Your task to perform on an android device: View the shopping cart on target.com. Search for "alienware area 51" on target.com, select the first entry, add it to the cart, then select checkout. Image 0: 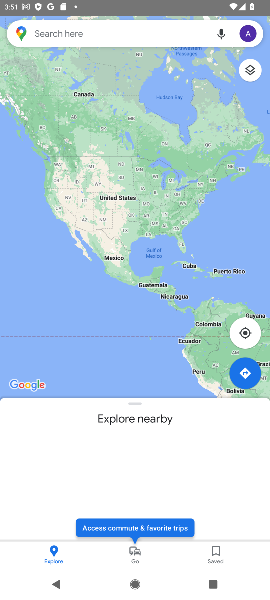
Step 0: press home button
Your task to perform on an android device: View the shopping cart on target.com. Search for "alienware area 51" on target.com, select the first entry, add it to the cart, then select checkout. Image 1: 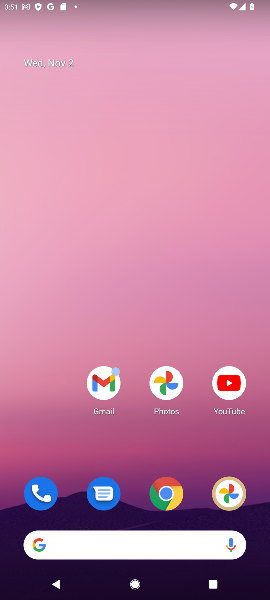
Step 1: drag from (144, 497) to (100, 184)
Your task to perform on an android device: View the shopping cart on target.com. Search for "alienware area 51" on target.com, select the first entry, add it to the cart, then select checkout. Image 2: 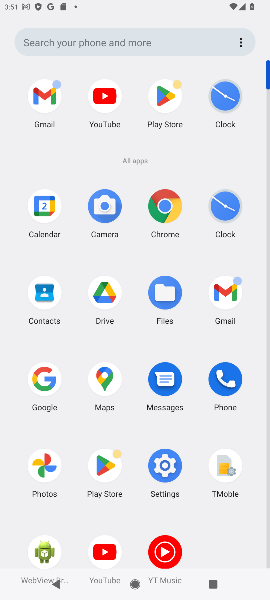
Step 2: click (51, 383)
Your task to perform on an android device: View the shopping cart on target.com. Search for "alienware area 51" on target.com, select the first entry, add it to the cart, then select checkout. Image 3: 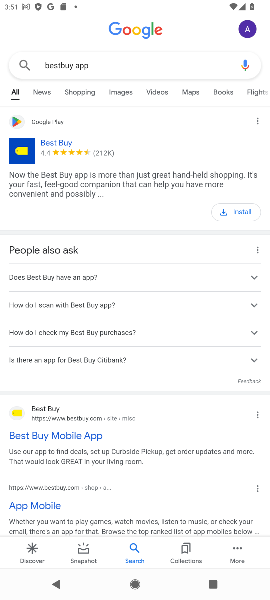
Step 3: click (89, 62)
Your task to perform on an android device: View the shopping cart on target.com. Search for "alienware area 51" on target.com, select the first entry, add it to the cart, then select checkout. Image 4: 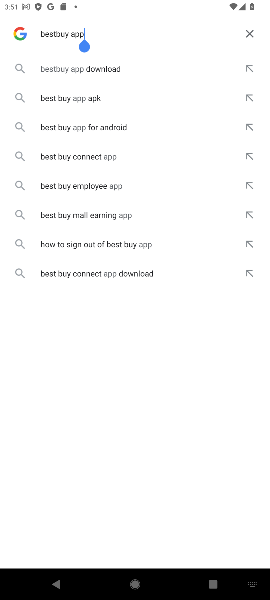
Step 4: click (249, 25)
Your task to perform on an android device: View the shopping cart on target.com. Search for "alienware area 51" on target.com, select the first entry, add it to the cart, then select checkout. Image 5: 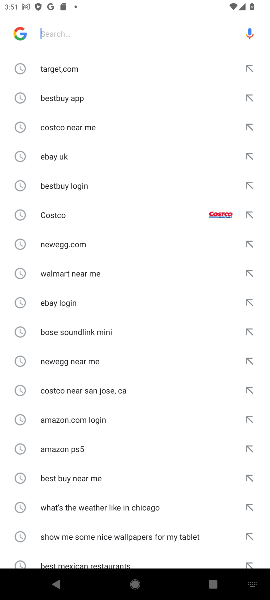
Step 5: click (54, 30)
Your task to perform on an android device: View the shopping cart on target.com. Search for "alienware area 51" on target.com, select the first entry, add it to the cart, then select checkout. Image 6: 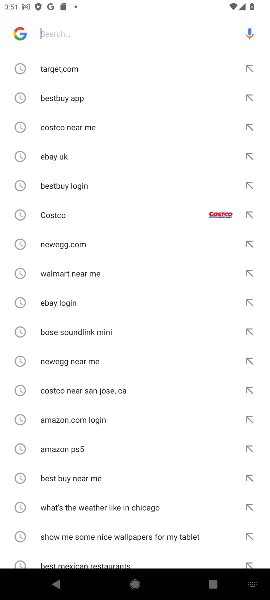
Step 6: type "target "
Your task to perform on an android device: View the shopping cart on target.com. Search for "alienware area 51" on target.com, select the first entry, add it to the cart, then select checkout. Image 7: 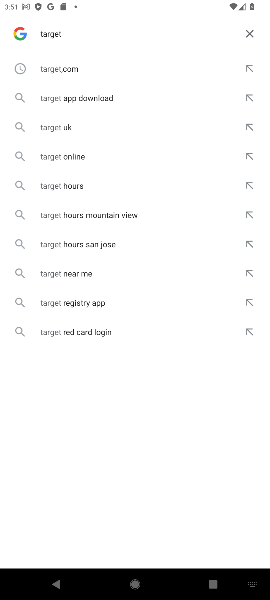
Step 7: click (82, 72)
Your task to perform on an android device: View the shopping cart on target.com. Search for "alienware area 51" on target.com, select the first entry, add it to the cart, then select checkout. Image 8: 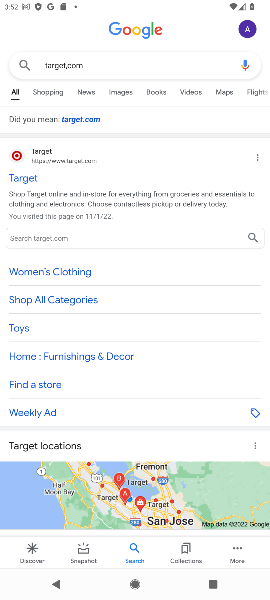
Step 8: click (11, 153)
Your task to perform on an android device: View the shopping cart on target.com. Search for "alienware area 51" on target.com, select the first entry, add it to the cart, then select checkout. Image 9: 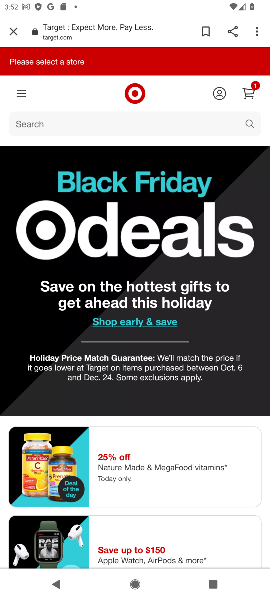
Step 9: click (86, 116)
Your task to perform on an android device: View the shopping cart on target.com. Search for "alienware area 51" on target.com, select the first entry, add it to the cart, then select checkout. Image 10: 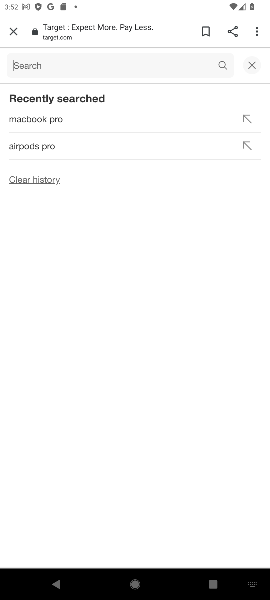
Step 10: type "alienware area 51 "
Your task to perform on an android device: View the shopping cart on target.com. Search for "alienware area 51" on target.com, select the first entry, add it to the cart, then select checkout. Image 11: 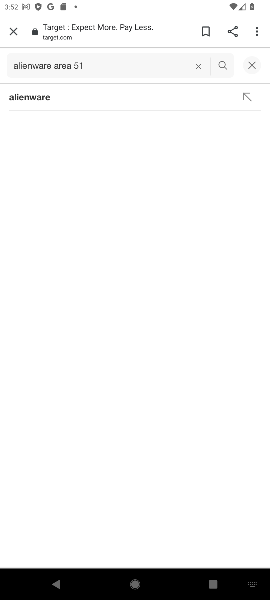
Step 11: click (55, 94)
Your task to perform on an android device: View the shopping cart on target.com. Search for "alienware area 51" on target.com, select the first entry, add it to the cart, then select checkout. Image 12: 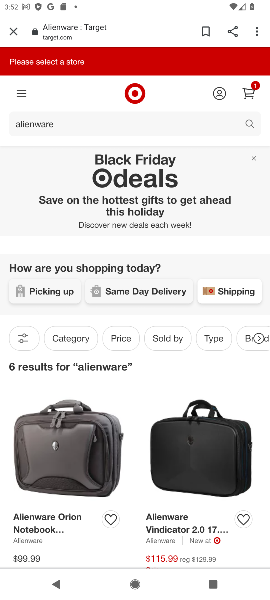
Step 12: drag from (111, 471) to (105, 302)
Your task to perform on an android device: View the shopping cart on target.com. Search for "alienware area 51" on target.com, select the first entry, add it to the cart, then select checkout. Image 13: 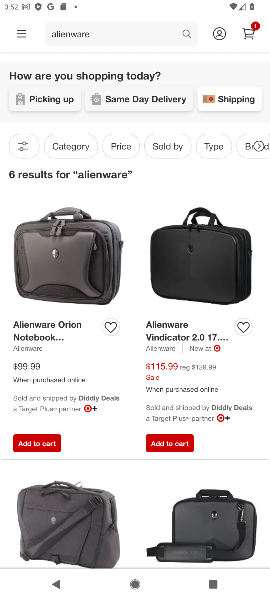
Step 13: click (29, 444)
Your task to perform on an android device: View the shopping cart on target.com. Search for "alienware area 51" on target.com, select the first entry, add it to the cart, then select checkout. Image 14: 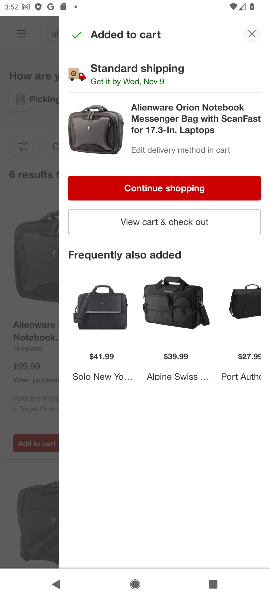
Step 14: task complete